Your task to perform on an android device: Go to Reddit.com Image 0: 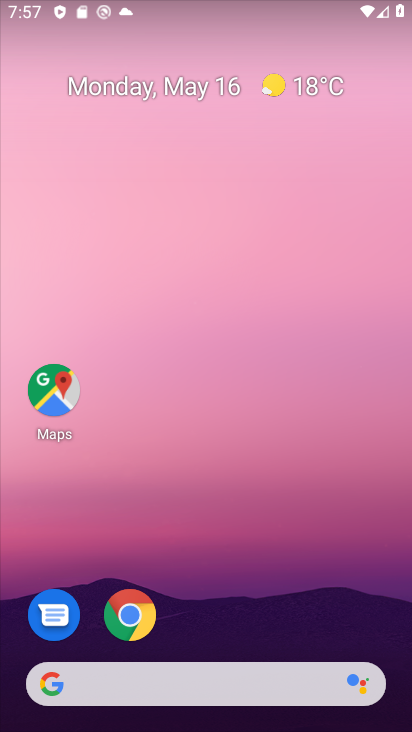
Step 0: click (140, 621)
Your task to perform on an android device: Go to Reddit.com Image 1: 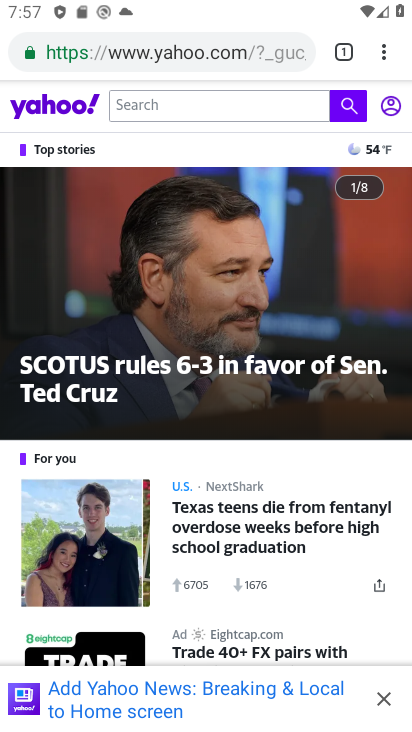
Step 1: click (352, 49)
Your task to perform on an android device: Go to Reddit.com Image 2: 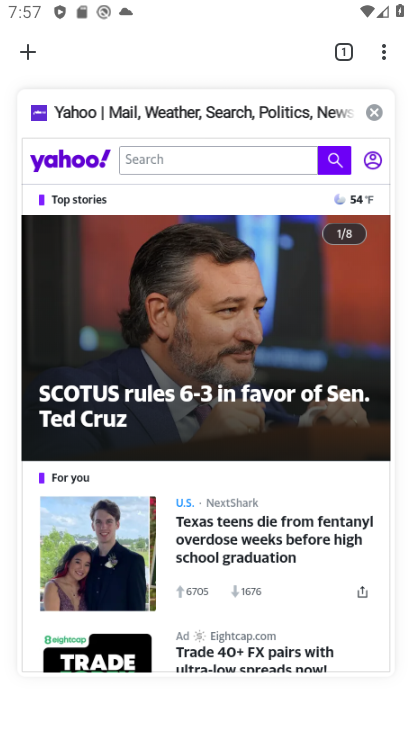
Step 2: click (28, 48)
Your task to perform on an android device: Go to Reddit.com Image 3: 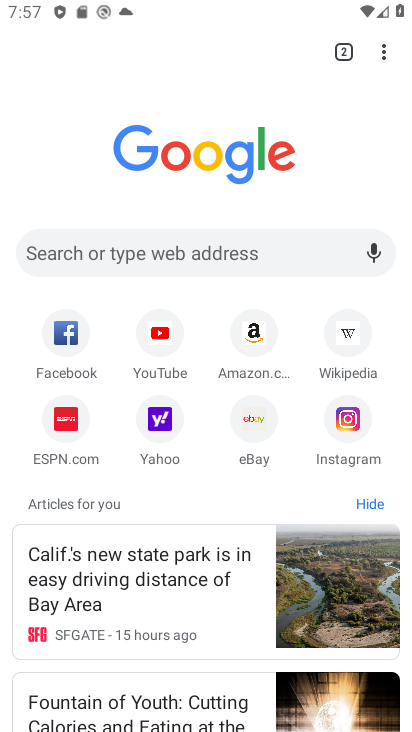
Step 3: click (231, 253)
Your task to perform on an android device: Go to Reddit.com Image 4: 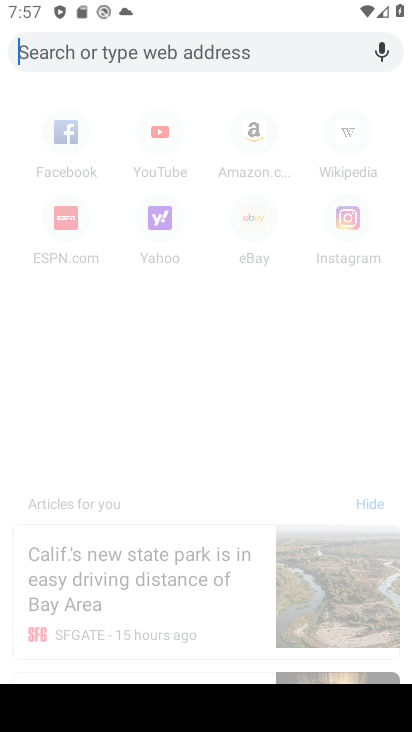
Step 4: type "reddit"
Your task to perform on an android device: Go to Reddit.com Image 5: 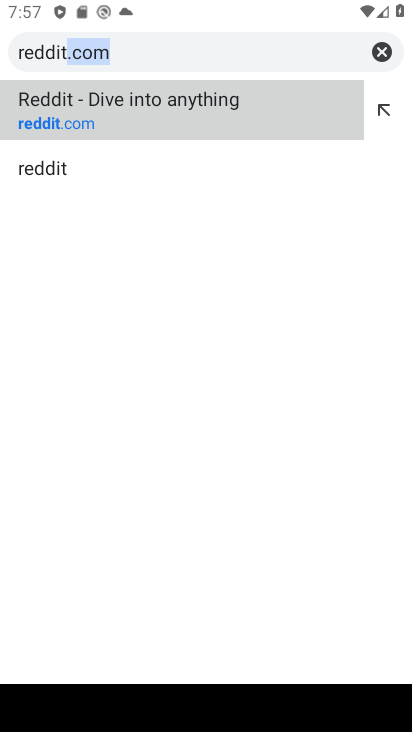
Step 5: click (24, 106)
Your task to perform on an android device: Go to Reddit.com Image 6: 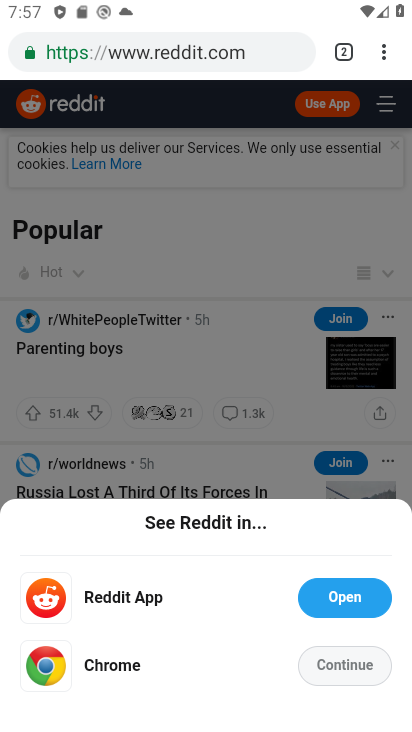
Step 6: click (227, 367)
Your task to perform on an android device: Go to Reddit.com Image 7: 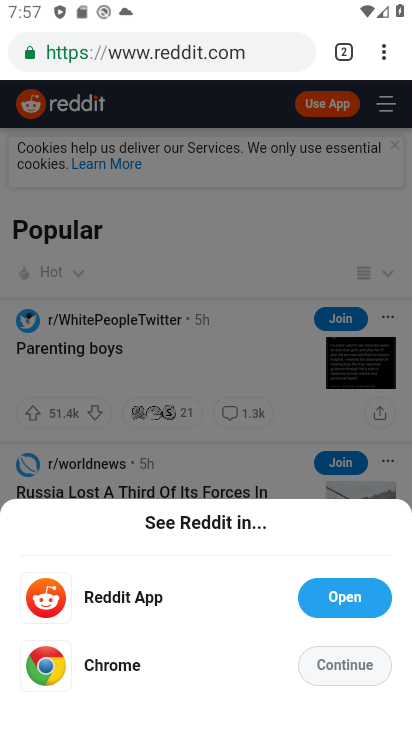
Step 7: click (345, 667)
Your task to perform on an android device: Go to Reddit.com Image 8: 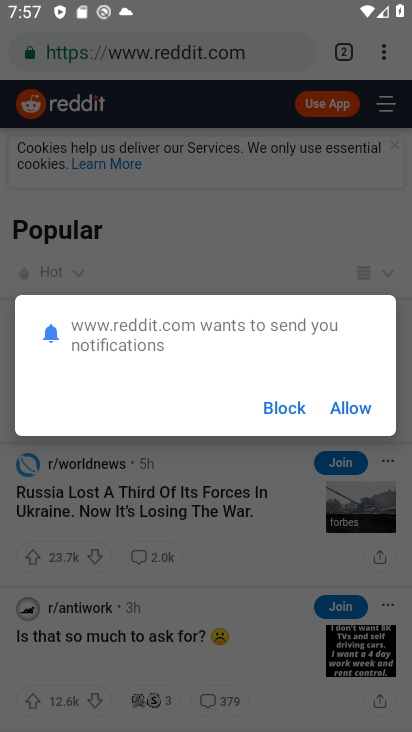
Step 8: click (348, 410)
Your task to perform on an android device: Go to Reddit.com Image 9: 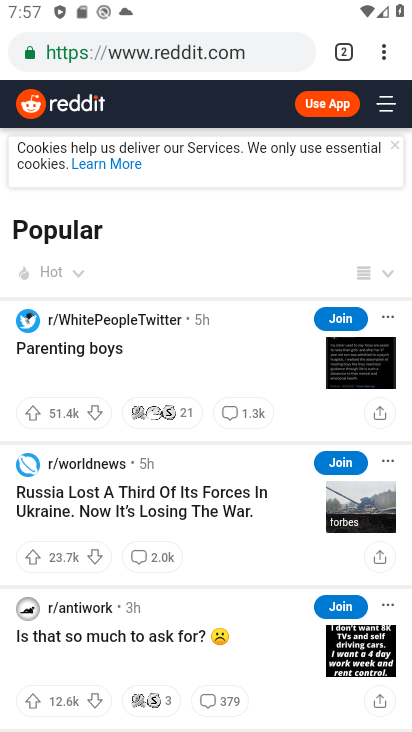
Step 9: task complete